Your task to perform on an android device: Open Youtube and go to the subscriptions tab Image 0: 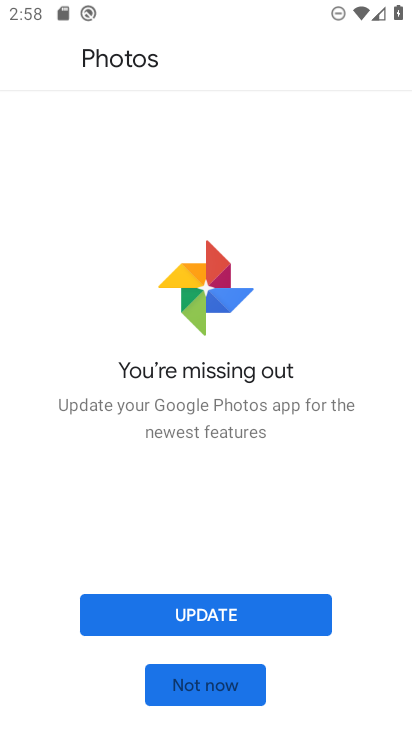
Step 0: press home button
Your task to perform on an android device: Open Youtube and go to the subscriptions tab Image 1: 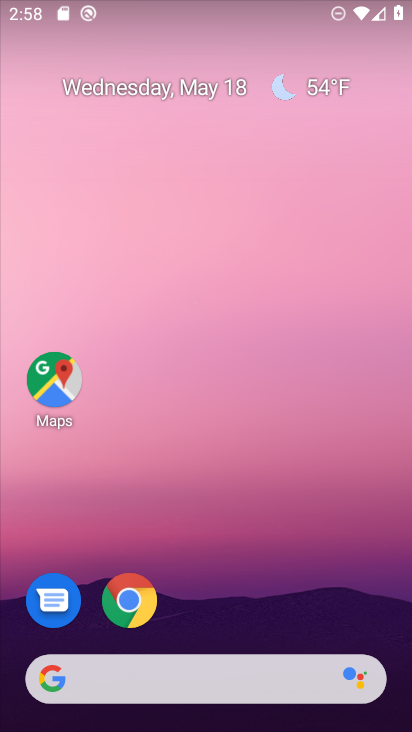
Step 1: drag from (257, 577) to (314, 7)
Your task to perform on an android device: Open Youtube and go to the subscriptions tab Image 2: 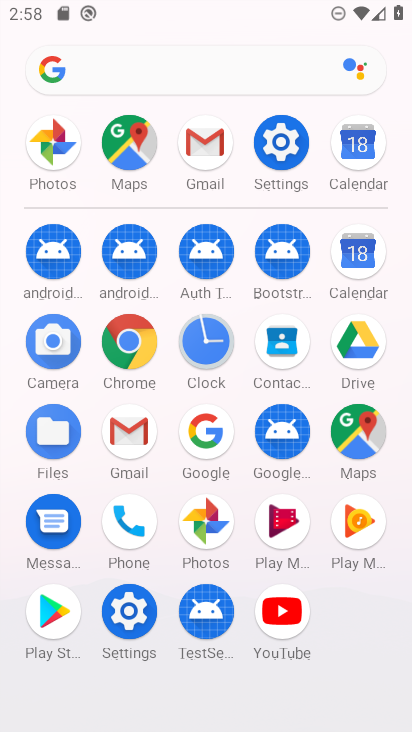
Step 2: click (284, 630)
Your task to perform on an android device: Open Youtube and go to the subscriptions tab Image 3: 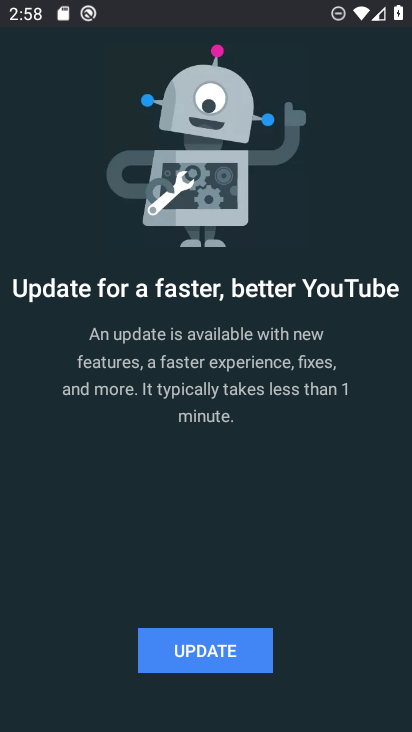
Step 3: click (196, 648)
Your task to perform on an android device: Open Youtube and go to the subscriptions tab Image 4: 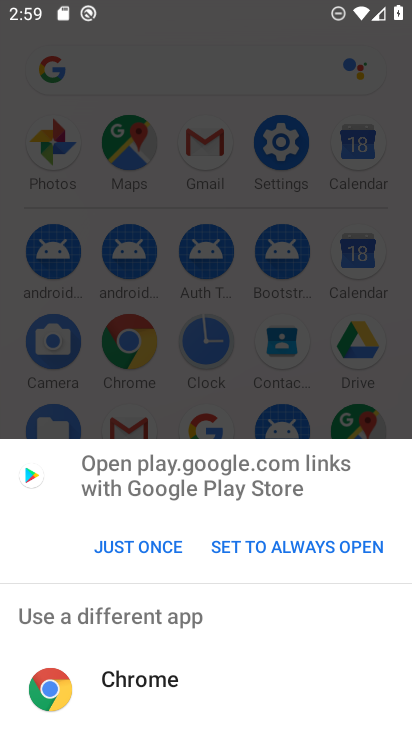
Step 4: click (148, 557)
Your task to perform on an android device: Open Youtube and go to the subscriptions tab Image 5: 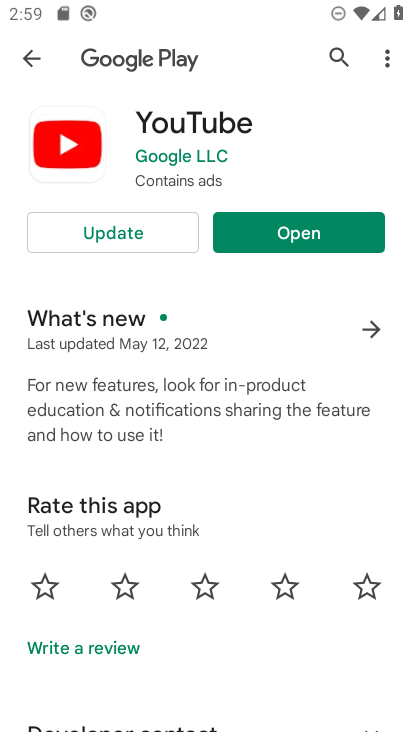
Step 5: click (146, 236)
Your task to perform on an android device: Open Youtube and go to the subscriptions tab Image 6: 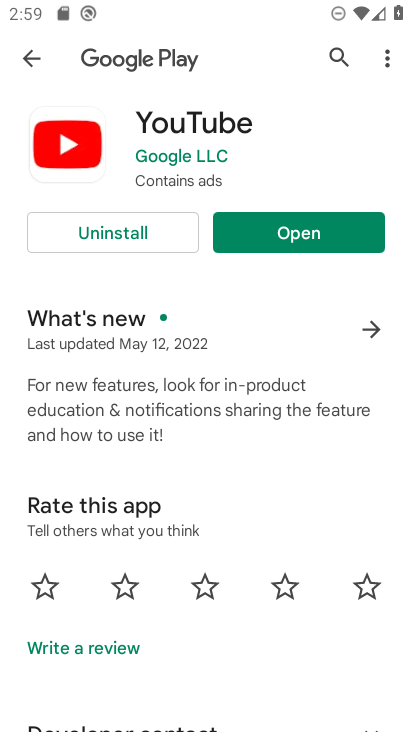
Step 6: click (300, 238)
Your task to perform on an android device: Open Youtube and go to the subscriptions tab Image 7: 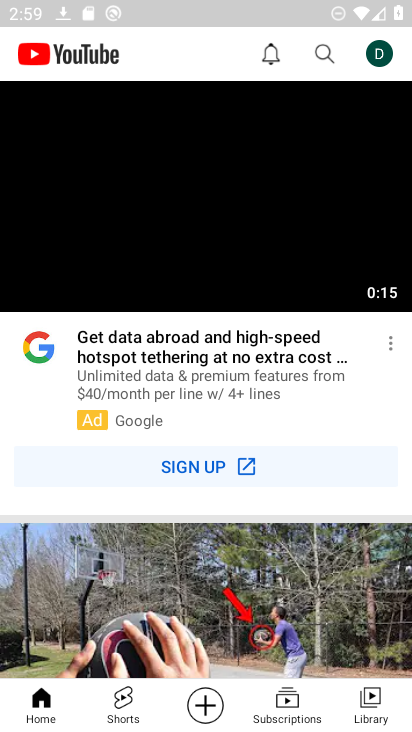
Step 7: click (290, 709)
Your task to perform on an android device: Open Youtube and go to the subscriptions tab Image 8: 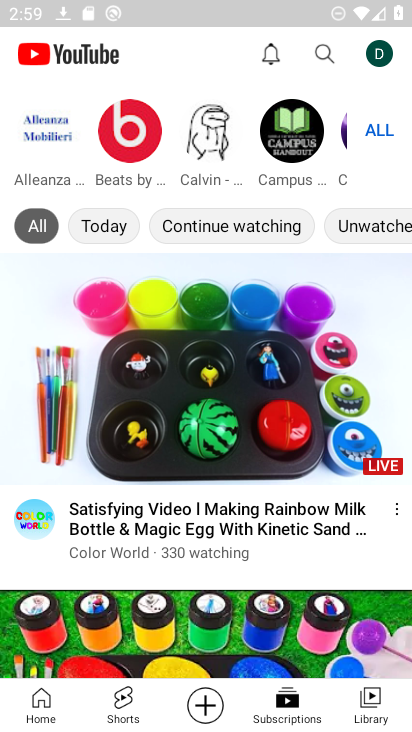
Step 8: task complete